Your task to perform on an android device: Go to wifi settings Image 0: 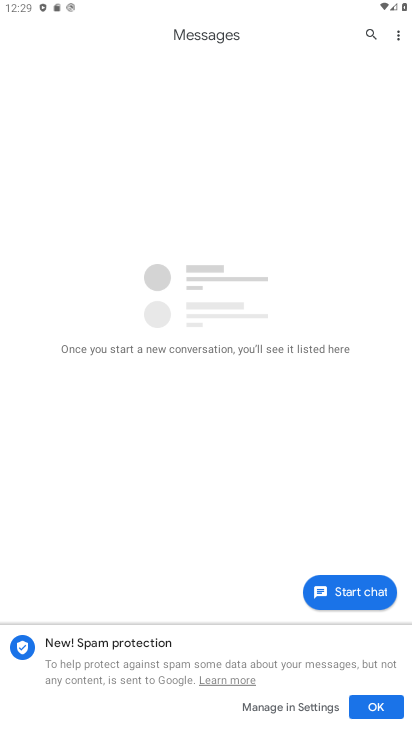
Step 0: press home button
Your task to perform on an android device: Go to wifi settings Image 1: 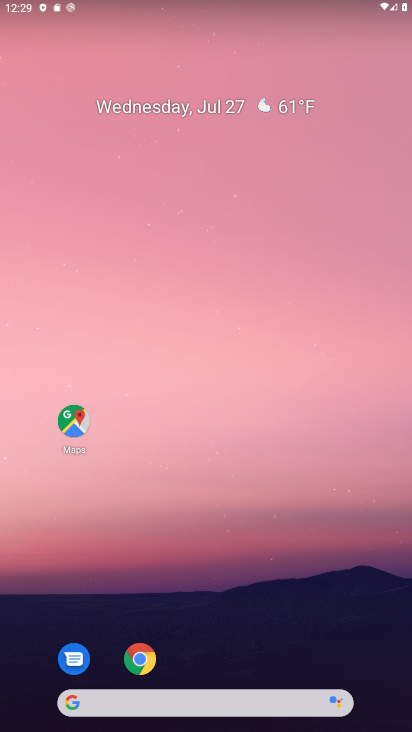
Step 1: drag from (226, 669) to (201, 165)
Your task to perform on an android device: Go to wifi settings Image 2: 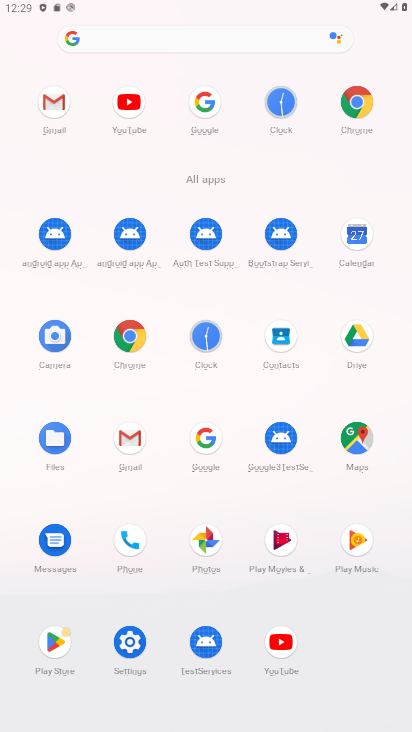
Step 2: click (135, 644)
Your task to perform on an android device: Go to wifi settings Image 3: 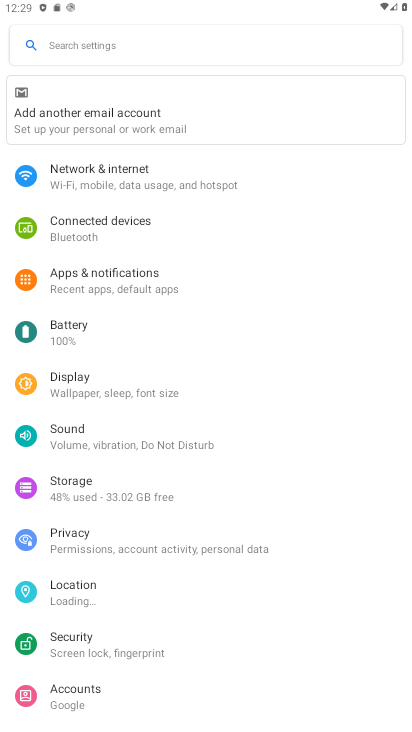
Step 3: click (120, 160)
Your task to perform on an android device: Go to wifi settings Image 4: 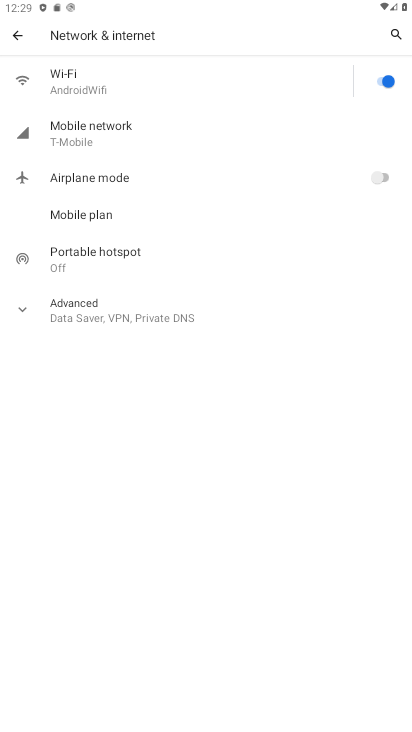
Step 4: click (89, 94)
Your task to perform on an android device: Go to wifi settings Image 5: 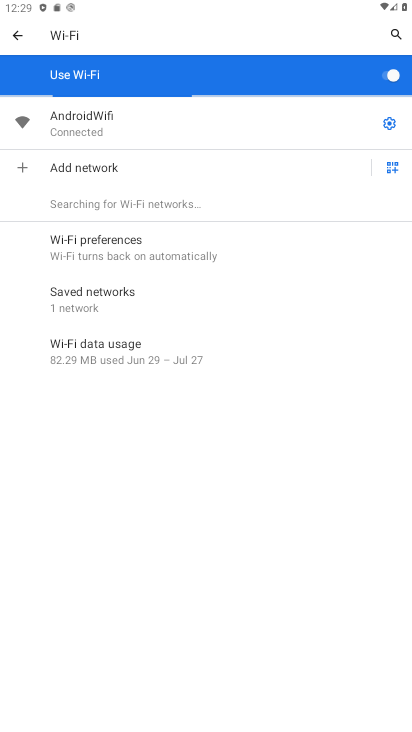
Step 5: task complete